Your task to perform on an android device: toggle priority inbox in the gmail app Image 0: 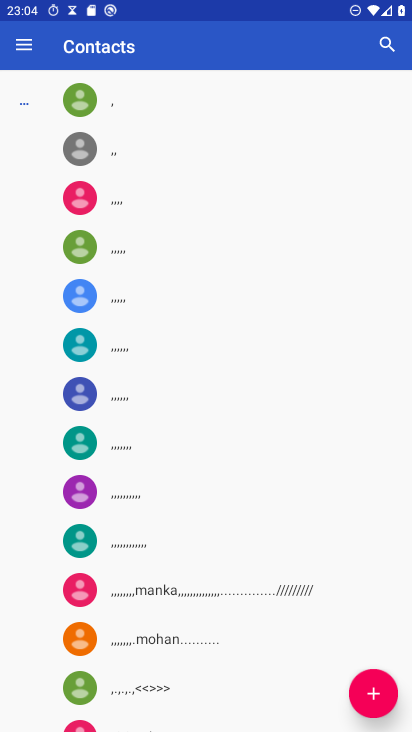
Step 0: task complete